Your task to perform on an android device: open sync settings in chrome Image 0: 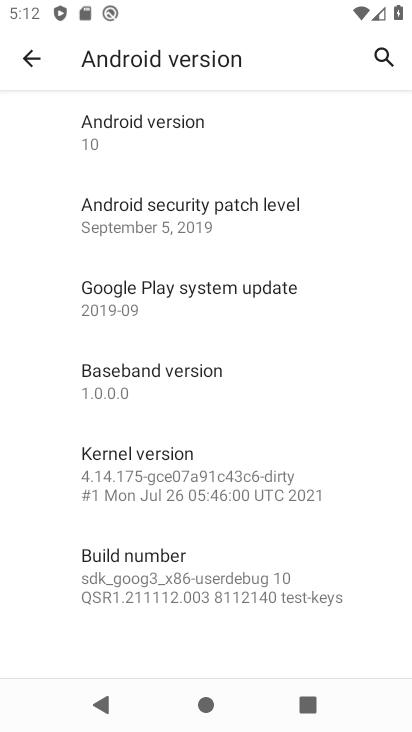
Step 0: press home button
Your task to perform on an android device: open sync settings in chrome Image 1: 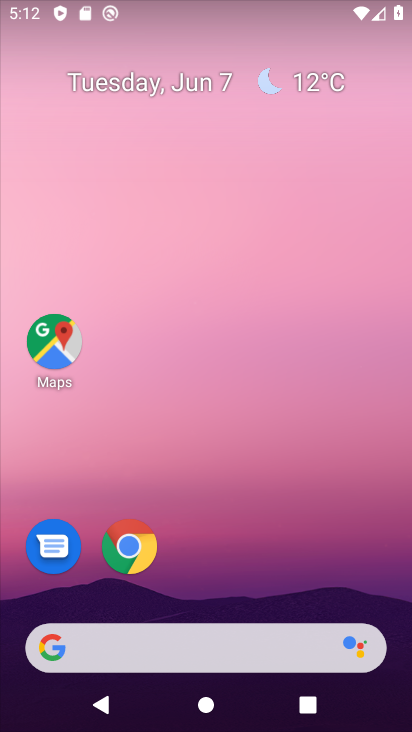
Step 1: drag from (233, 543) to (278, 68)
Your task to perform on an android device: open sync settings in chrome Image 2: 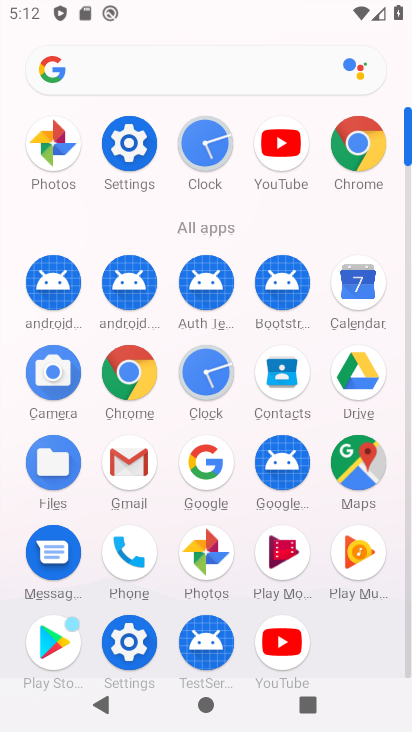
Step 2: click (124, 368)
Your task to perform on an android device: open sync settings in chrome Image 3: 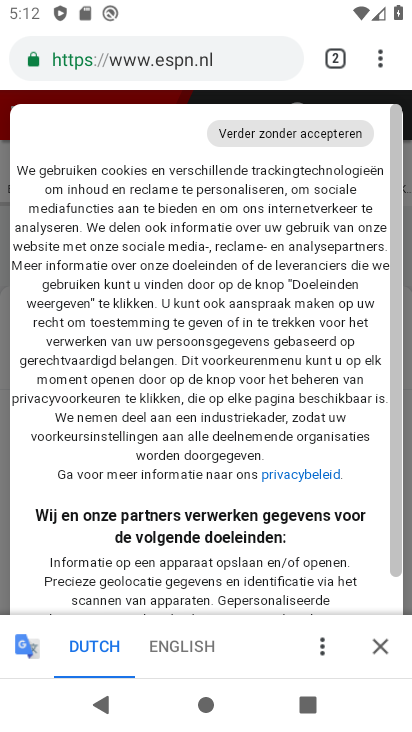
Step 3: drag from (382, 59) to (219, 571)
Your task to perform on an android device: open sync settings in chrome Image 4: 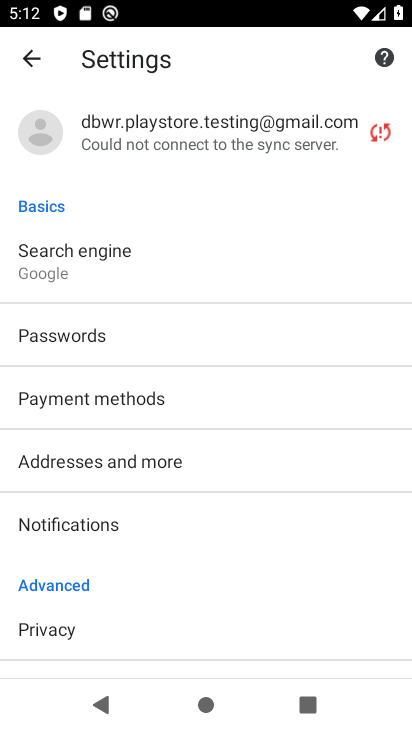
Step 4: click (50, 138)
Your task to perform on an android device: open sync settings in chrome Image 5: 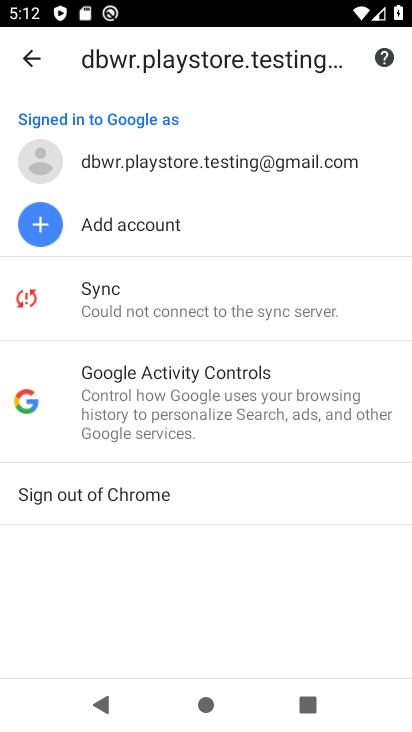
Step 5: click (114, 297)
Your task to perform on an android device: open sync settings in chrome Image 6: 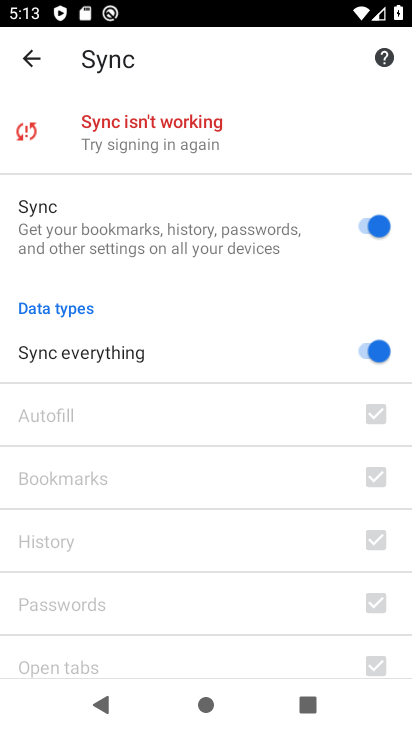
Step 6: task complete